Your task to perform on an android device: toggle location history Image 0: 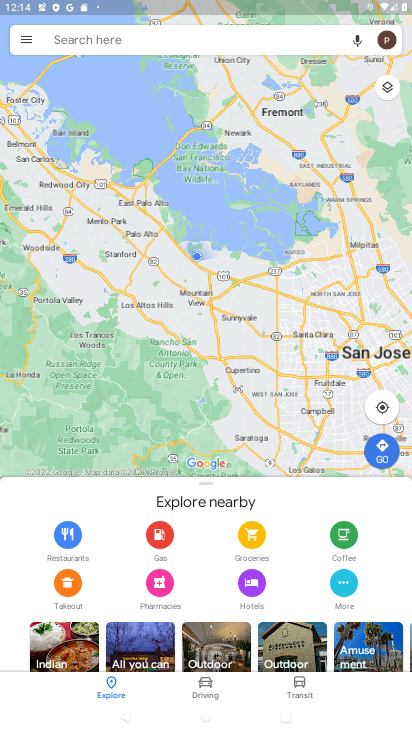
Step 0: press home button
Your task to perform on an android device: toggle location history Image 1: 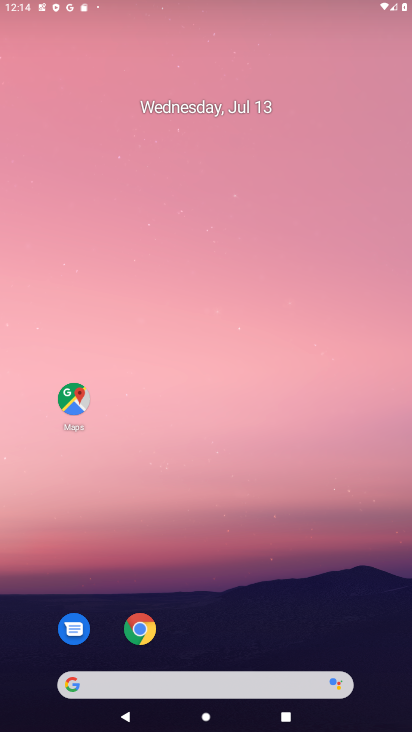
Step 1: drag from (231, 634) to (270, 189)
Your task to perform on an android device: toggle location history Image 2: 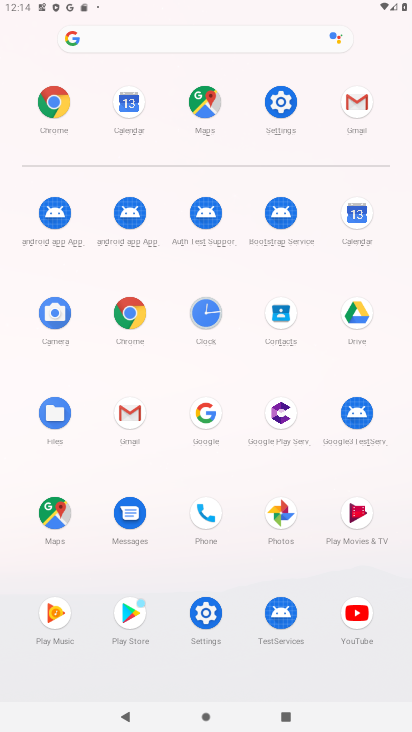
Step 2: click (271, 102)
Your task to perform on an android device: toggle location history Image 3: 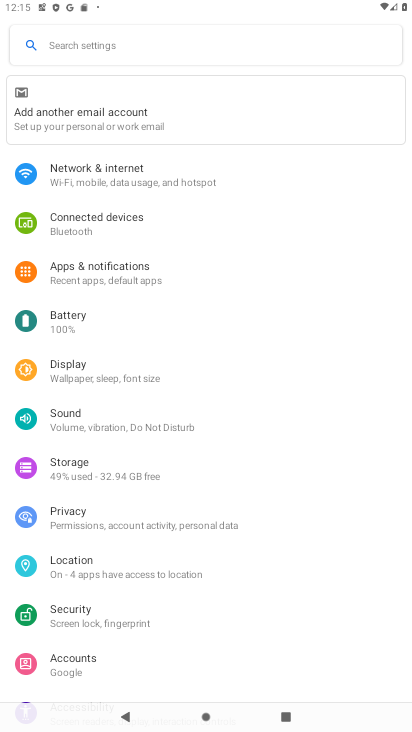
Step 3: click (92, 565)
Your task to perform on an android device: toggle location history Image 4: 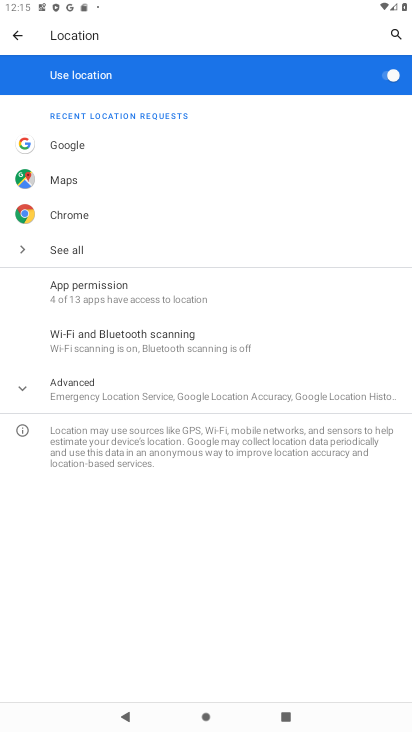
Step 4: click (125, 387)
Your task to perform on an android device: toggle location history Image 5: 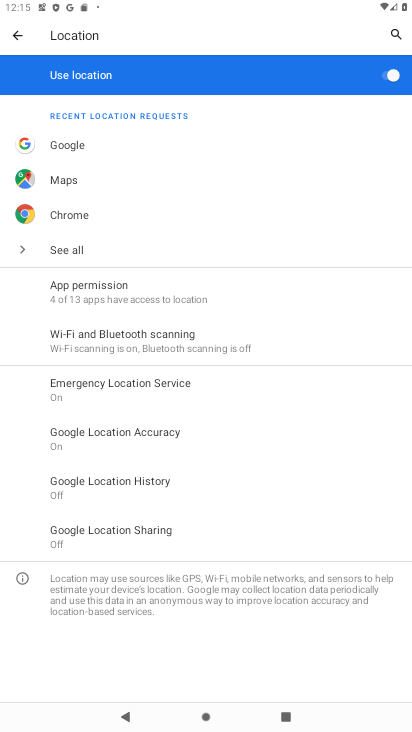
Step 5: click (127, 492)
Your task to perform on an android device: toggle location history Image 6: 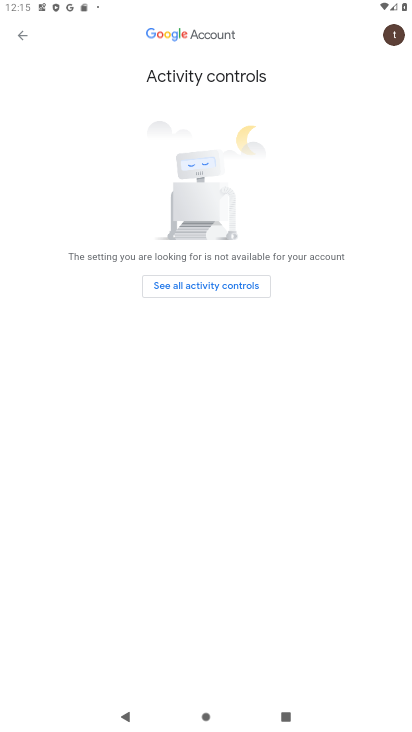
Step 6: click (206, 273)
Your task to perform on an android device: toggle location history Image 7: 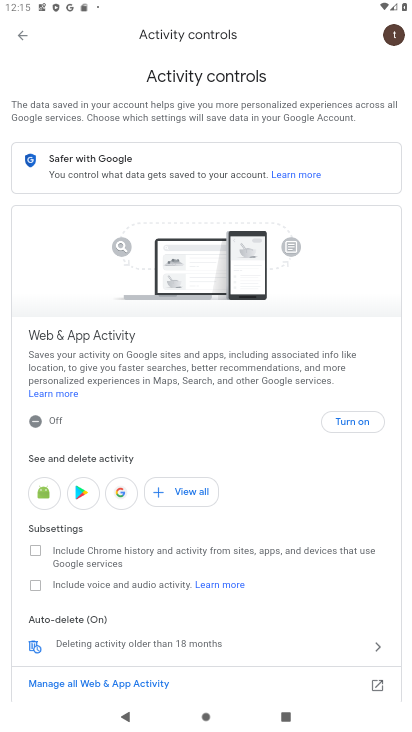
Step 7: click (348, 426)
Your task to perform on an android device: toggle location history Image 8: 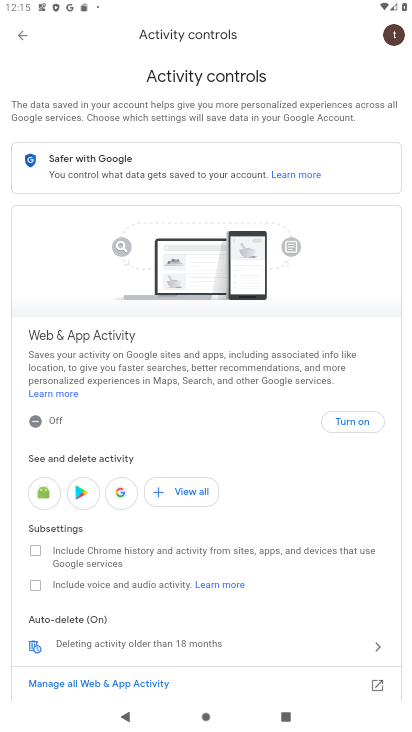
Step 8: click (348, 426)
Your task to perform on an android device: toggle location history Image 9: 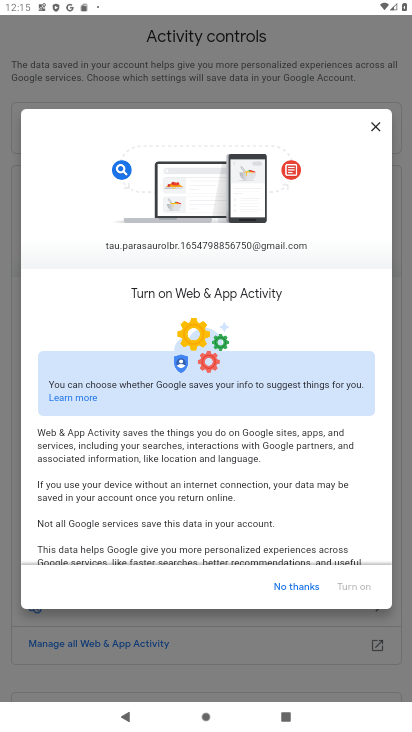
Step 9: task complete